Your task to perform on an android device: turn off sleep mode Image 0: 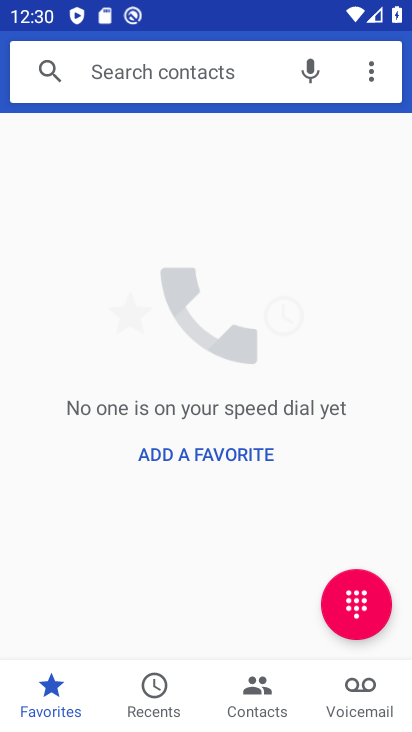
Step 0: press home button
Your task to perform on an android device: turn off sleep mode Image 1: 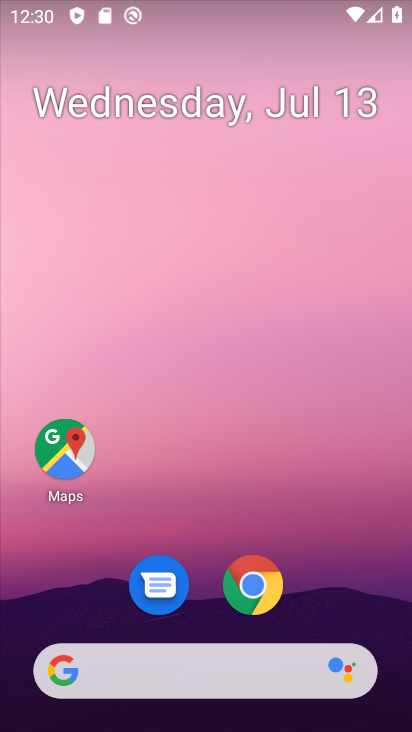
Step 1: drag from (347, 546) to (311, 20)
Your task to perform on an android device: turn off sleep mode Image 2: 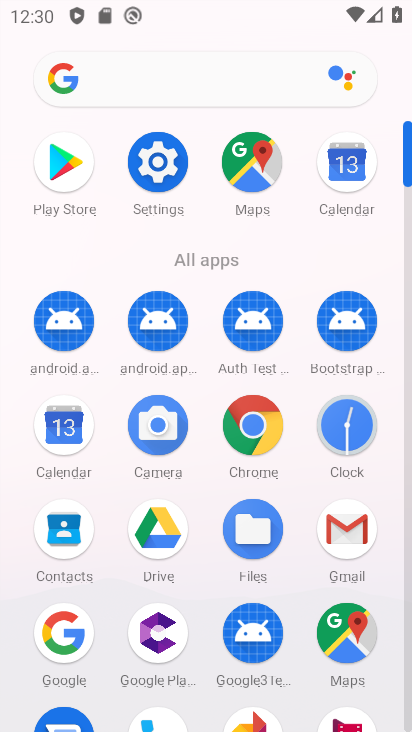
Step 2: click (164, 159)
Your task to perform on an android device: turn off sleep mode Image 3: 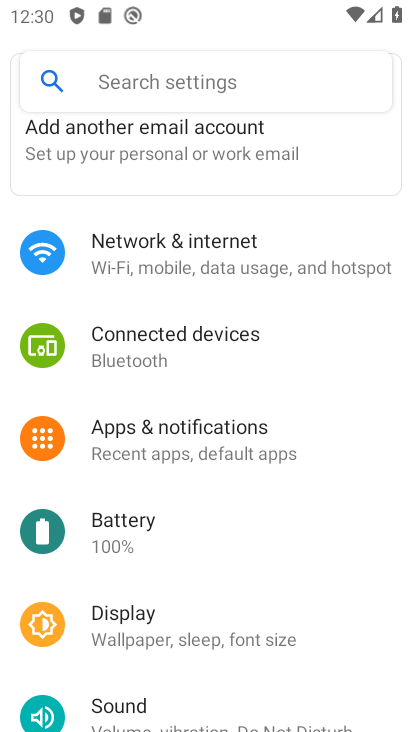
Step 3: click (178, 631)
Your task to perform on an android device: turn off sleep mode Image 4: 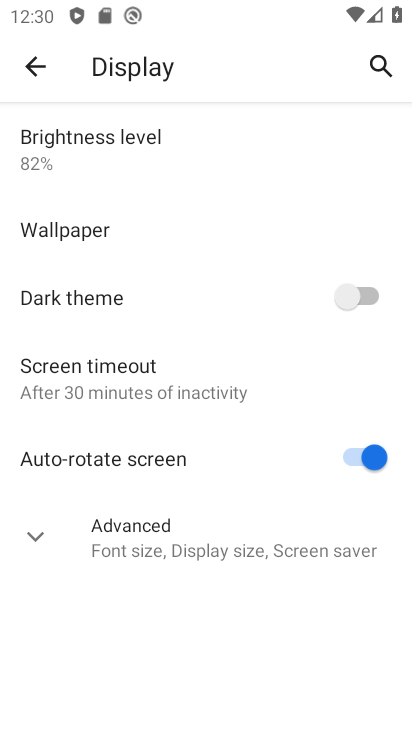
Step 4: click (38, 535)
Your task to perform on an android device: turn off sleep mode Image 5: 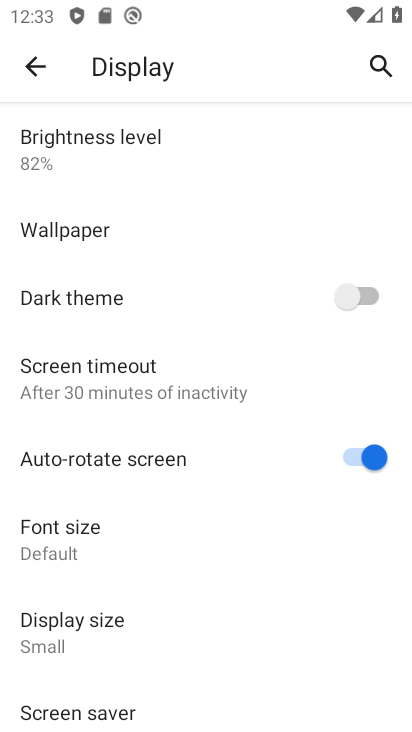
Step 5: task complete